Your task to perform on an android device: turn on showing notifications on the lock screen Image 0: 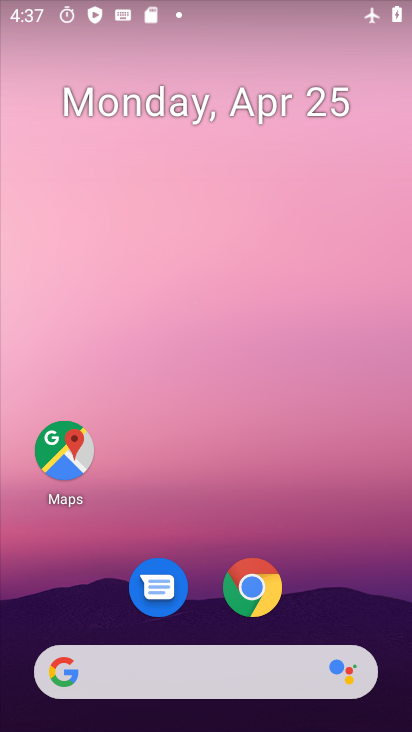
Step 0: drag from (323, 582) to (273, 73)
Your task to perform on an android device: turn on showing notifications on the lock screen Image 1: 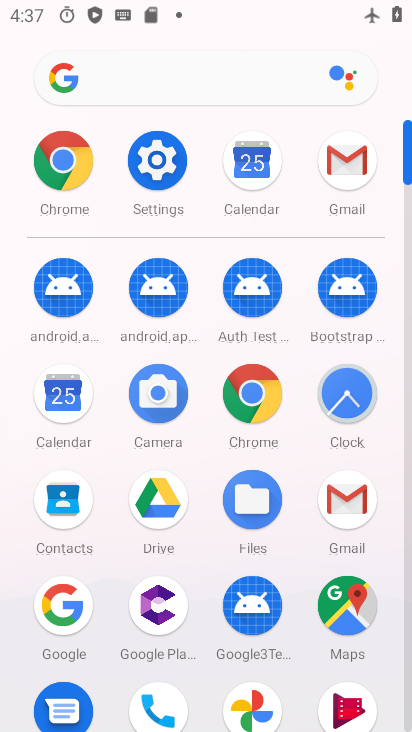
Step 1: click (156, 149)
Your task to perform on an android device: turn on showing notifications on the lock screen Image 2: 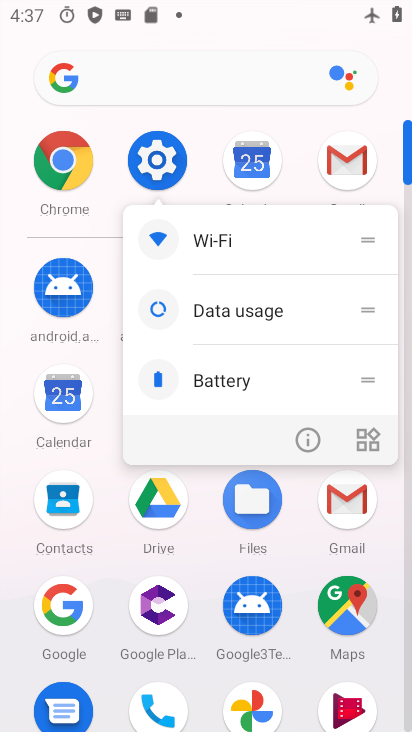
Step 2: click (96, 453)
Your task to perform on an android device: turn on showing notifications on the lock screen Image 3: 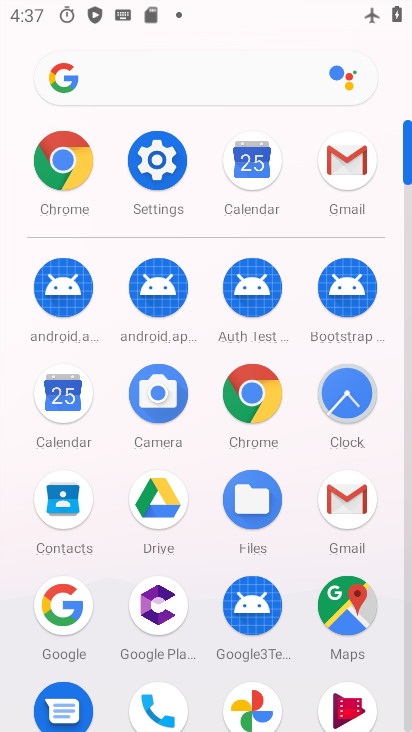
Step 3: drag from (112, 459) to (242, 65)
Your task to perform on an android device: turn on showing notifications on the lock screen Image 4: 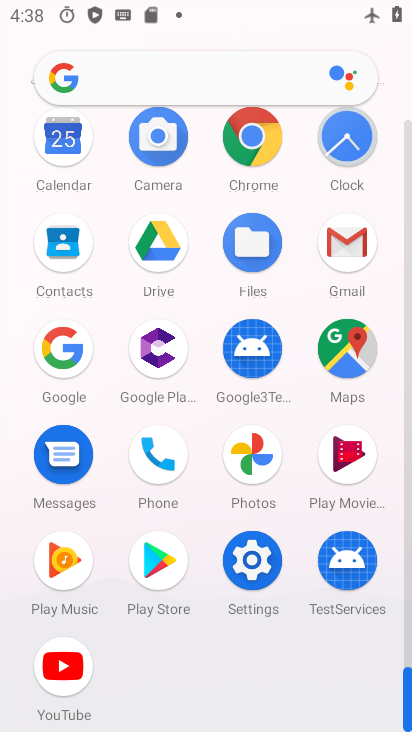
Step 4: click (246, 556)
Your task to perform on an android device: turn on showing notifications on the lock screen Image 5: 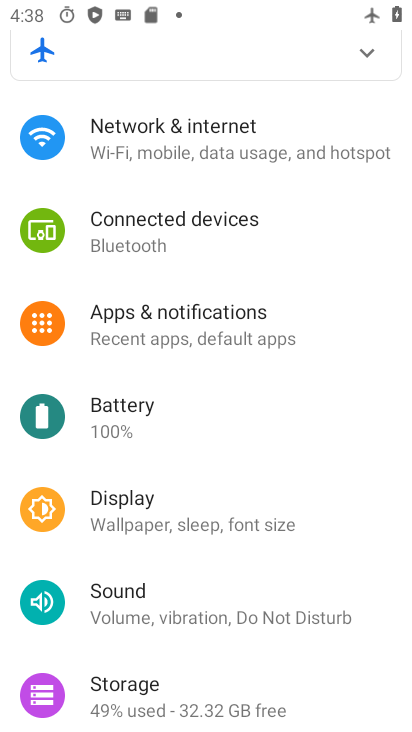
Step 5: drag from (289, 656) to (307, 254)
Your task to perform on an android device: turn on showing notifications on the lock screen Image 6: 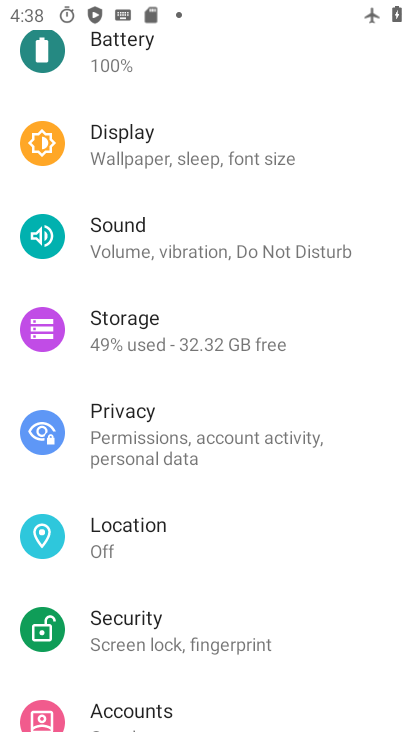
Step 6: drag from (198, 619) to (229, 246)
Your task to perform on an android device: turn on showing notifications on the lock screen Image 7: 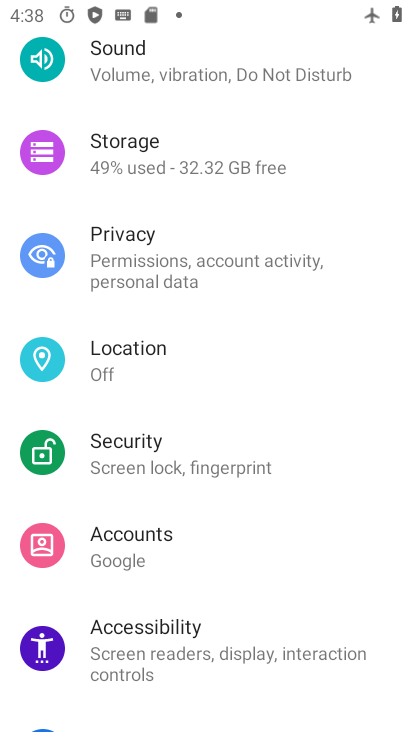
Step 7: drag from (187, 33) to (198, 474)
Your task to perform on an android device: turn on showing notifications on the lock screen Image 8: 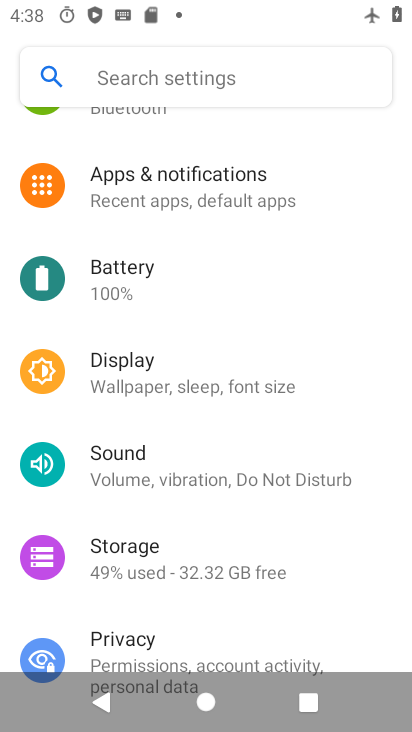
Step 8: click (218, 195)
Your task to perform on an android device: turn on showing notifications on the lock screen Image 9: 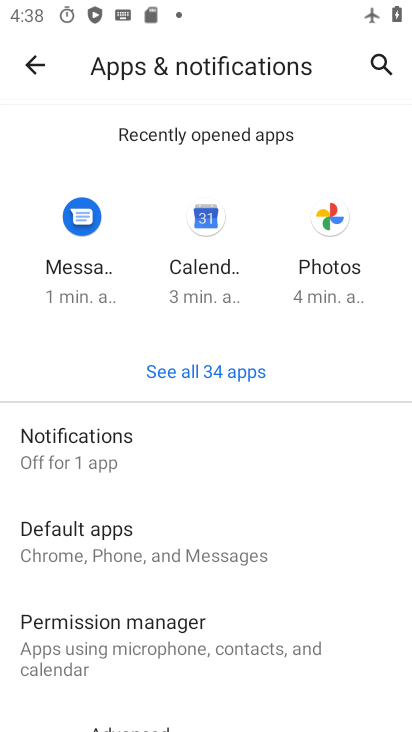
Step 9: click (72, 455)
Your task to perform on an android device: turn on showing notifications on the lock screen Image 10: 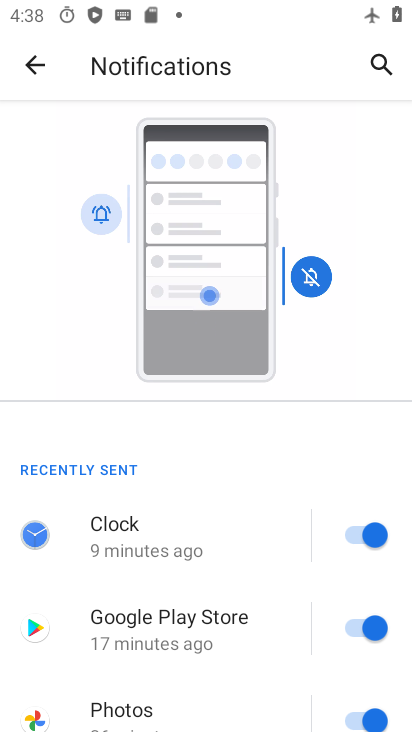
Step 10: drag from (285, 420) to (209, 11)
Your task to perform on an android device: turn on showing notifications on the lock screen Image 11: 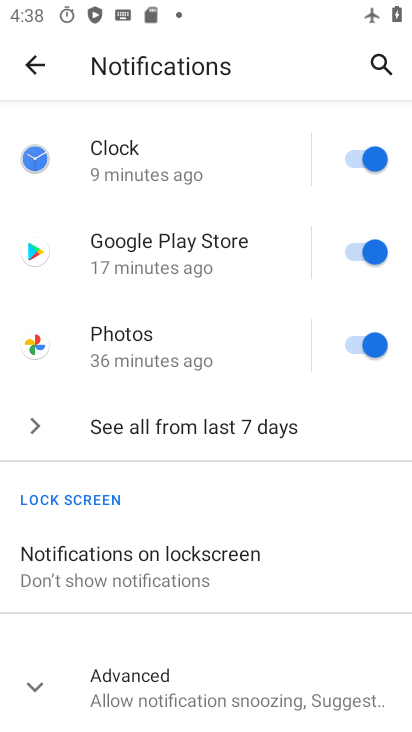
Step 11: drag from (179, 565) to (221, 177)
Your task to perform on an android device: turn on showing notifications on the lock screen Image 12: 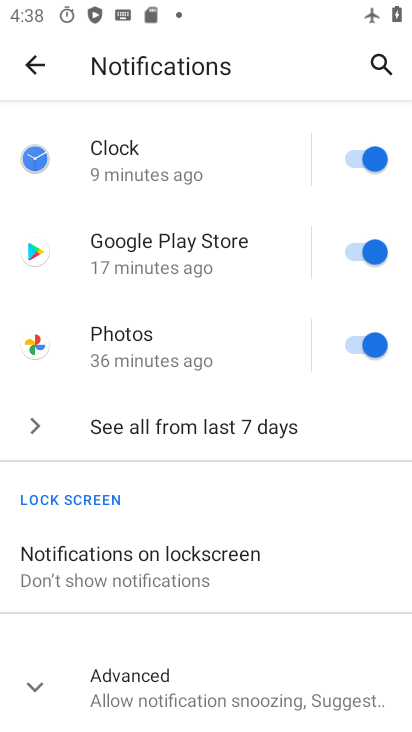
Step 12: click (144, 559)
Your task to perform on an android device: turn on showing notifications on the lock screen Image 13: 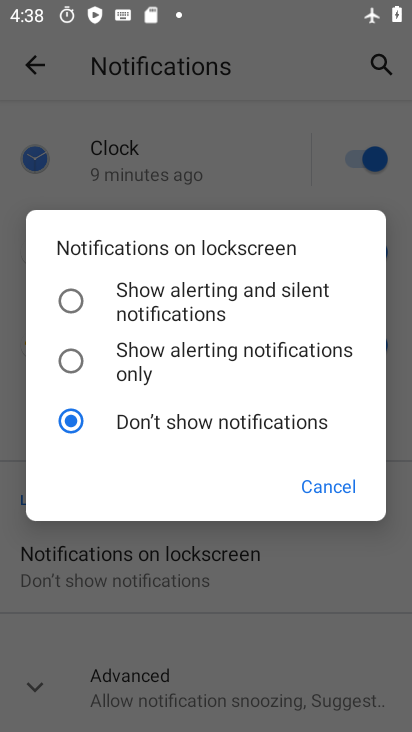
Step 13: click (244, 349)
Your task to perform on an android device: turn on showing notifications on the lock screen Image 14: 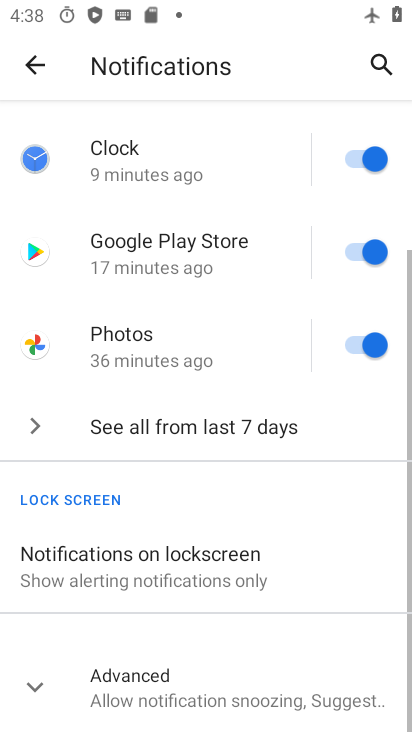
Step 14: task complete